Your task to perform on an android device: Do I have any events tomorrow? Image 0: 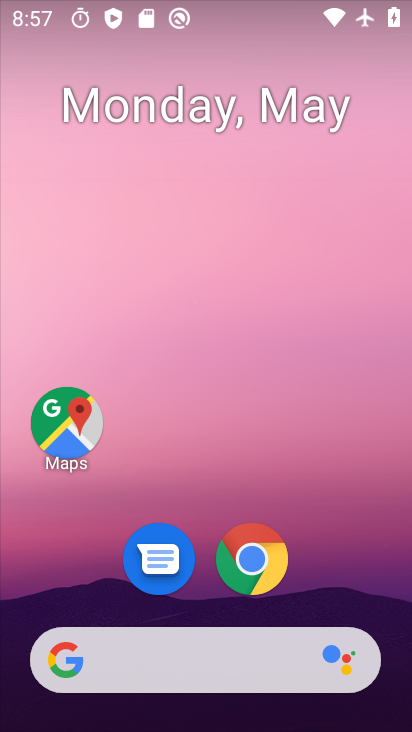
Step 0: drag from (313, 588) to (350, 0)
Your task to perform on an android device: Do I have any events tomorrow? Image 1: 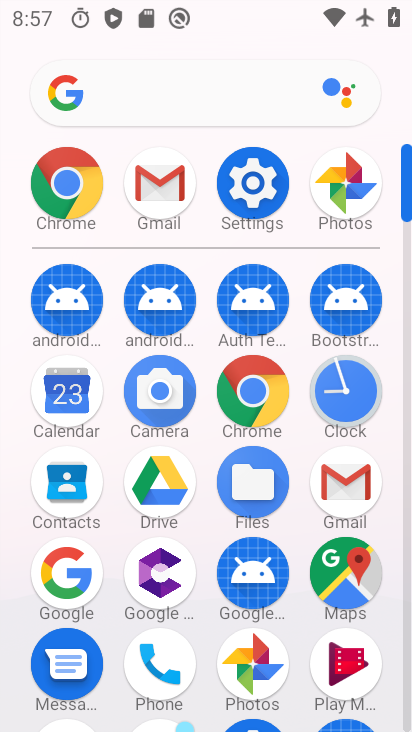
Step 1: click (57, 403)
Your task to perform on an android device: Do I have any events tomorrow? Image 2: 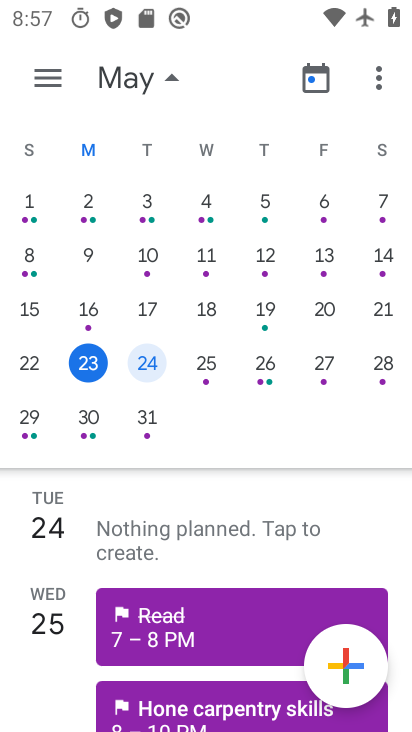
Step 2: click (149, 359)
Your task to perform on an android device: Do I have any events tomorrow? Image 3: 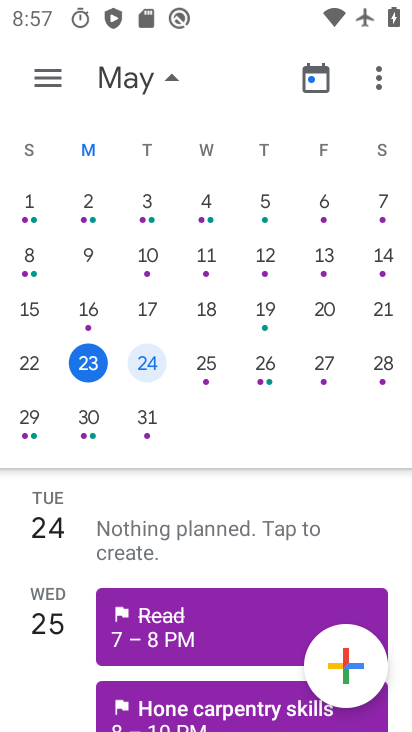
Step 3: task complete